Your task to perform on an android device: Go to accessibility settings Image 0: 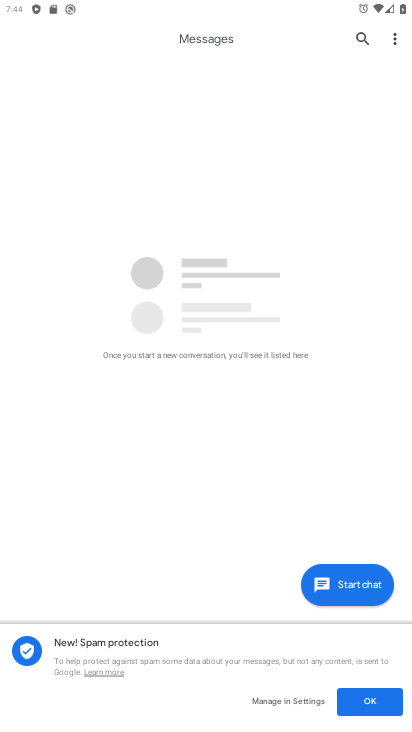
Step 0: press home button
Your task to perform on an android device: Go to accessibility settings Image 1: 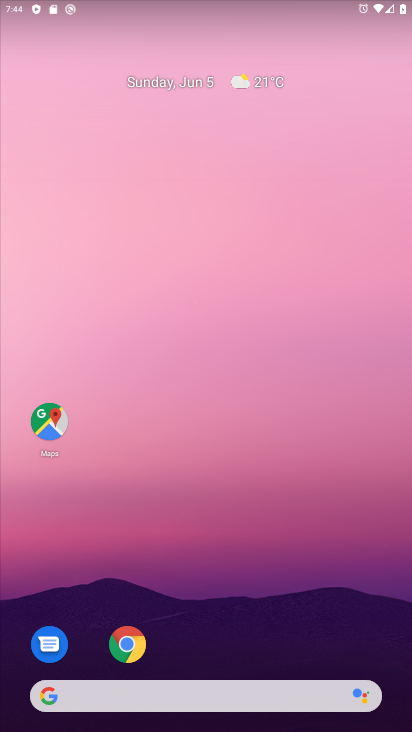
Step 1: drag from (57, 508) to (279, 77)
Your task to perform on an android device: Go to accessibility settings Image 2: 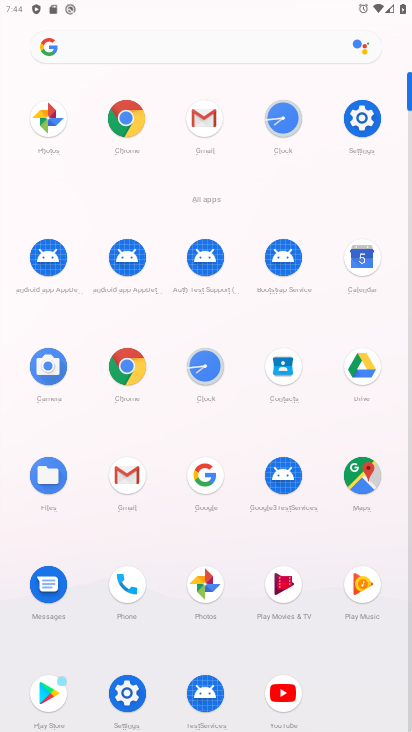
Step 2: click (122, 134)
Your task to perform on an android device: Go to accessibility settings Image 3: 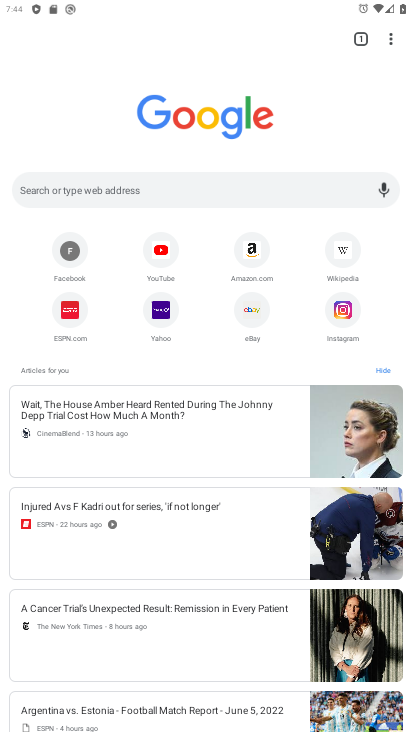
Step 3: click (384, 35)
Your task to perform on an android device: Go to accessibility settings Image 4: 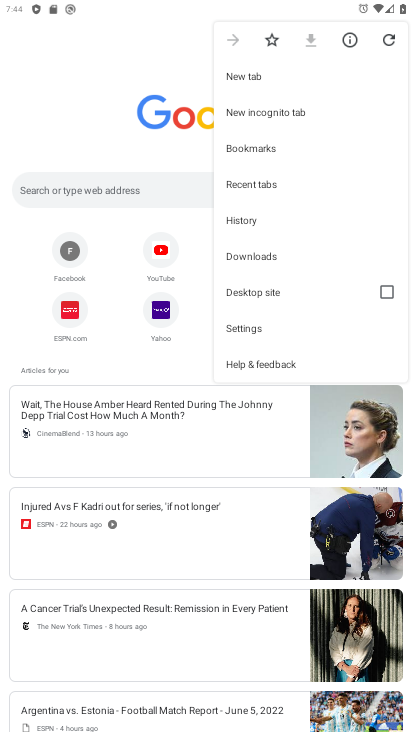
Step 4: click (244, 337)
Your task to perform on an android device: Go to accessibility settings Image 5: 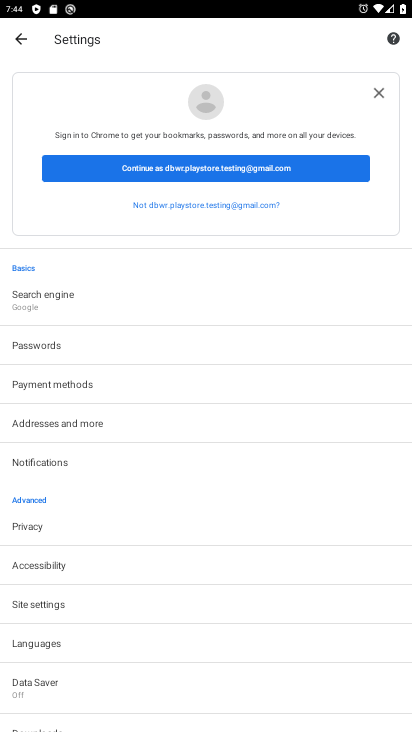
Step 5: click (35, 563)
Your task to perform on an android device: Go to accessibility settings Image 6: 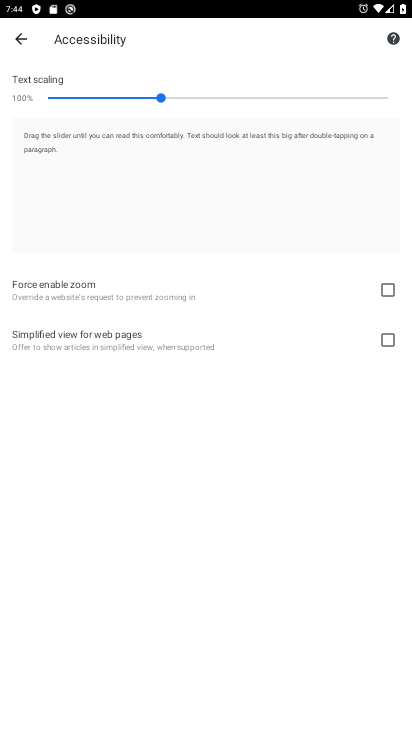
Step 6: task complete